Your task to perform on an android device: change the clock display to digital Image 0: 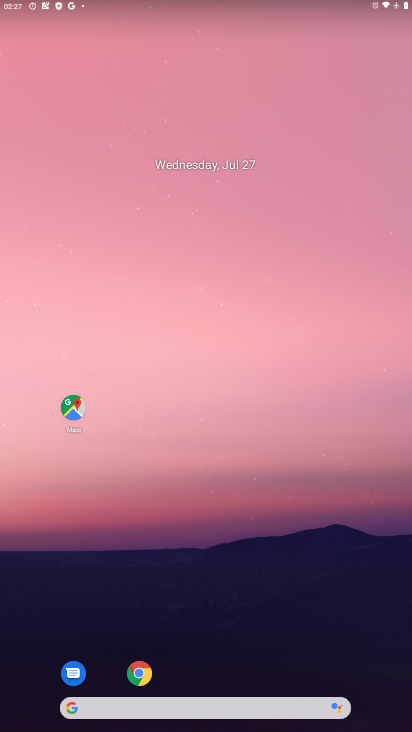
Step 0: drag from (226, 682) to (220, 8)
Your task to perform on an android device: change the clock display to digital Image 1: 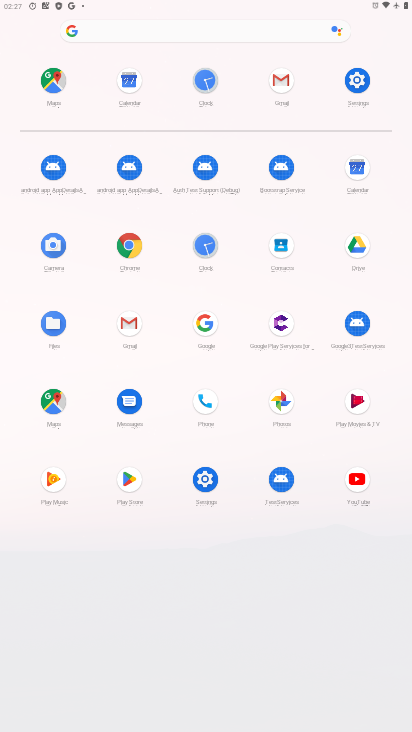
Step 1: click (204, 86)
Your task to perform on an android device: change the clock display to digital Image 2: 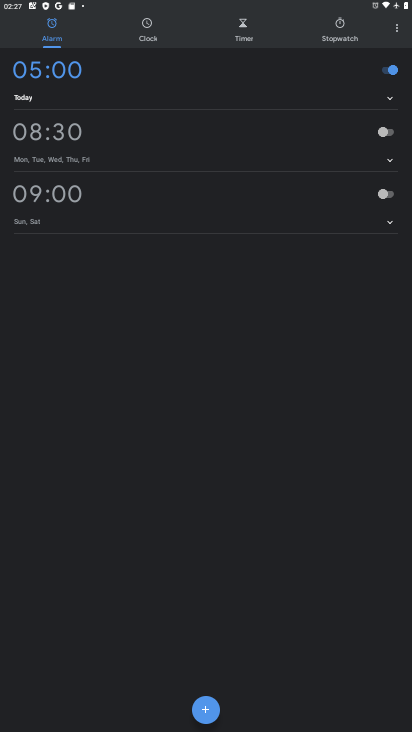
Step 2: click (402, 35)
Your task to perform on an android device: change the clock display to digital Image 3: 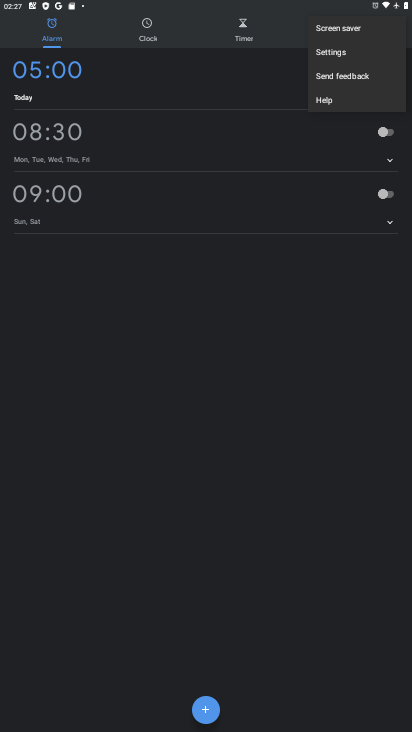
Step 3: click (344, 61)
Your task to perform on an android device: change the clock display to digital Image 4: 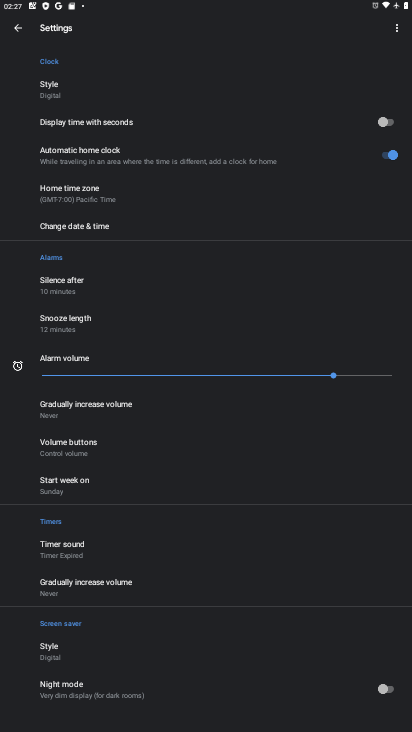
Step 4: task complete